Your task to perform on an android device: turn off sleep mode Image 0: 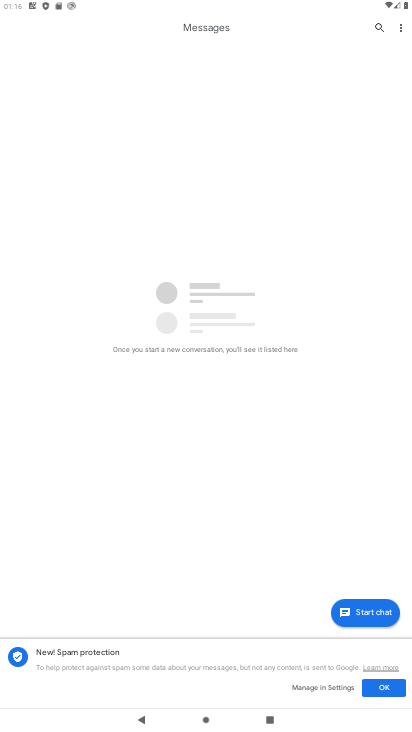
Step 0: press home button
Your task to perform on an android device: turn off sleep mode Image 1: 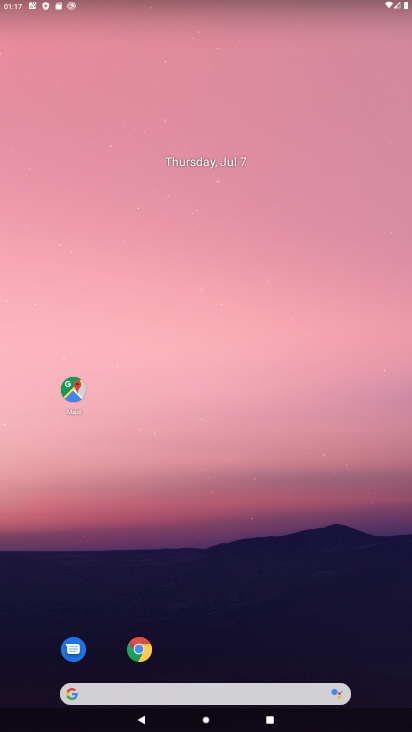
Step 1: drag from (332, 8) to (321, 298)
Your task to perform on an android device: turn off sleep mode Image 2: 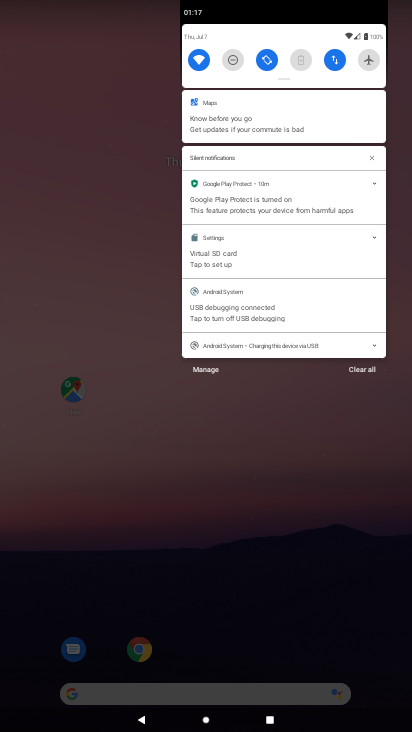
Step 2: drag from (294, 77) to (269, 308)
Your task to perform on an android device: turn off sleep mode Image 3: 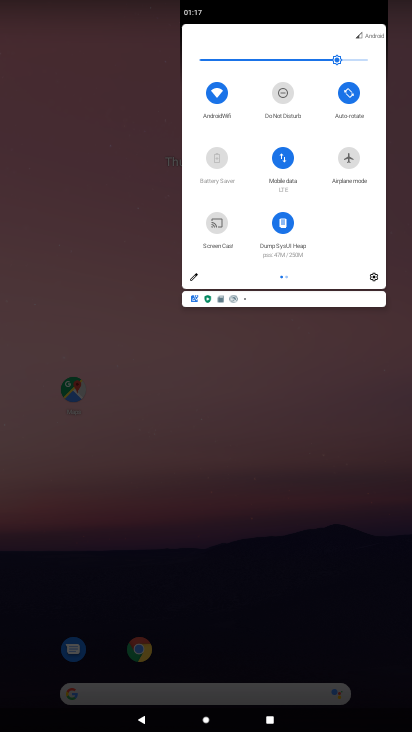
Step 3: click (188, 275)
Your task to perform on an android device: turn off sleep mode Image 4: 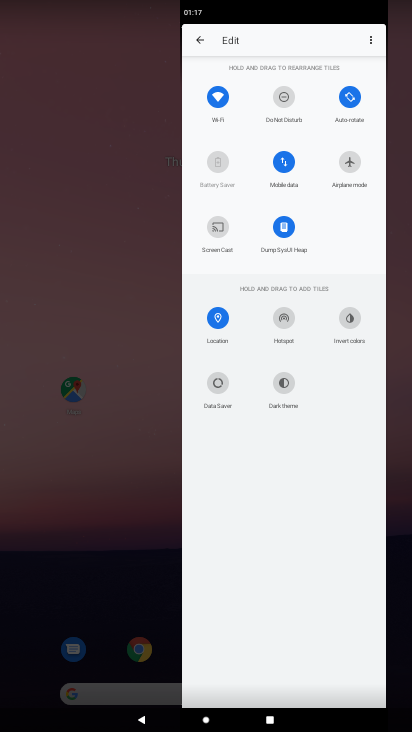
Step 4: task complete